Your task to perform on an android device: turn off smart reply in the gmail app Image 0: 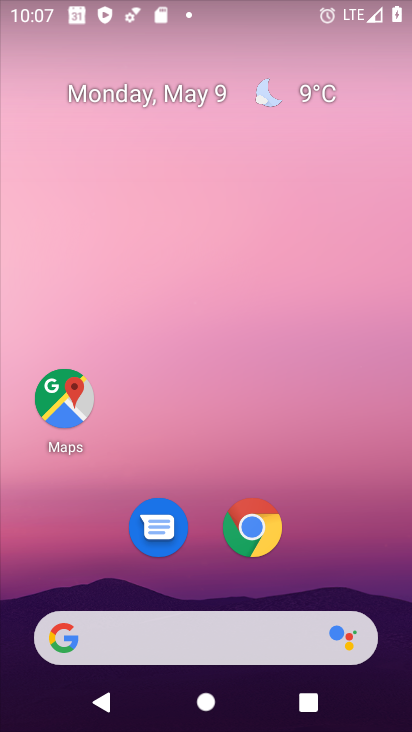
Step 0: drag from (389, 593) to (299, 58)
Your task to perform on an android device: turn off smart reply in the gmail app Image 1: 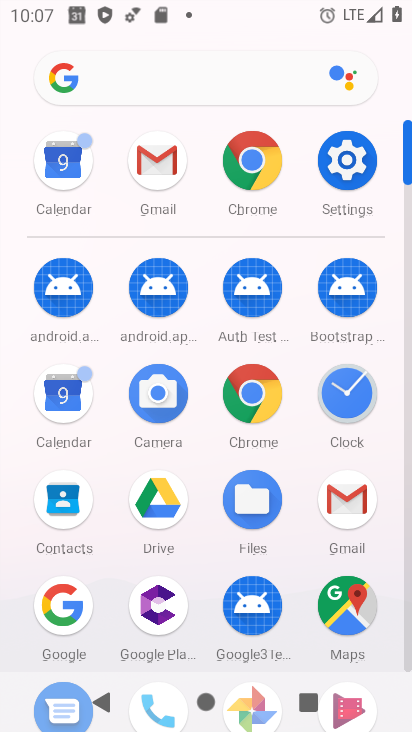
Step 1: click (402, 659)
Your task to perform on an android device: turn off smart reply in the gmail app Image 2: 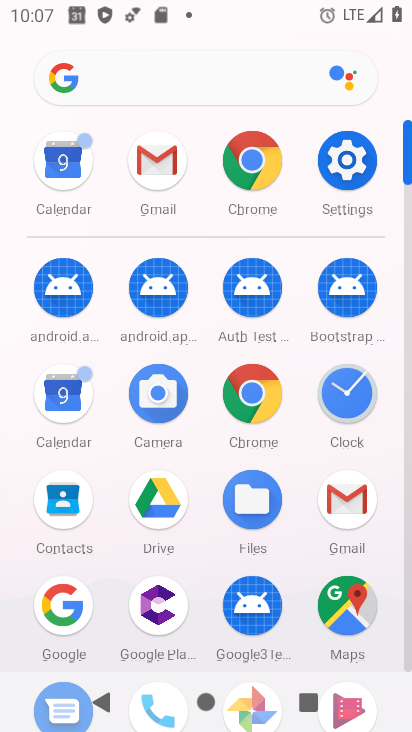
Step 2: click (409, 662)
Your task to perform on an android device: turn off smart reply in the gmail app Image 3: 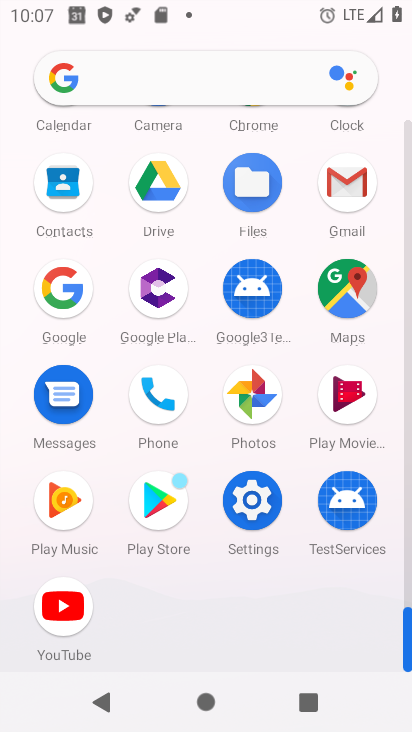
Step 3: click (346, 181)
Your task to perform on an android device: turn off smart reply in the gmail app Image 4: 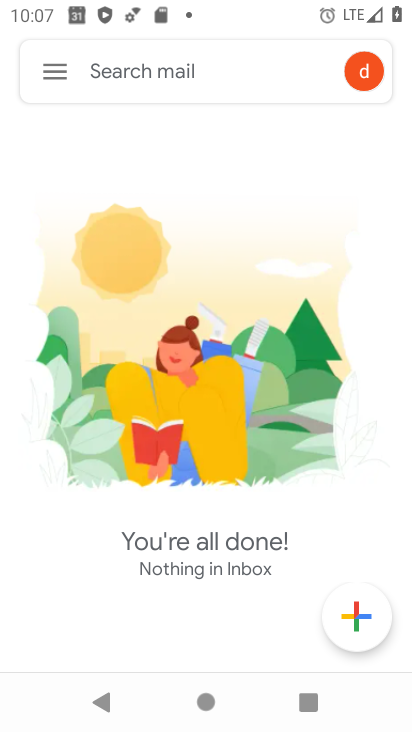
Step 4: click (52, 78)
Your task to perform on an android device: turn off smart reply in the gmail app Image 5: 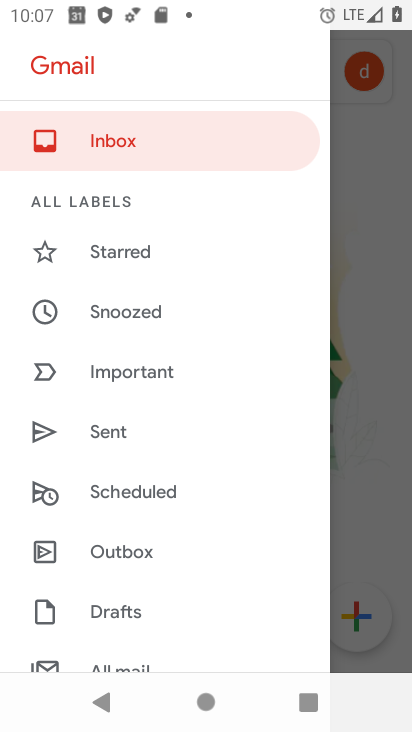
Step 5: drag from (222, 591) to (260, 208)
Your task to perform on an android device: turn off smart reply in the gmail app Image 6: 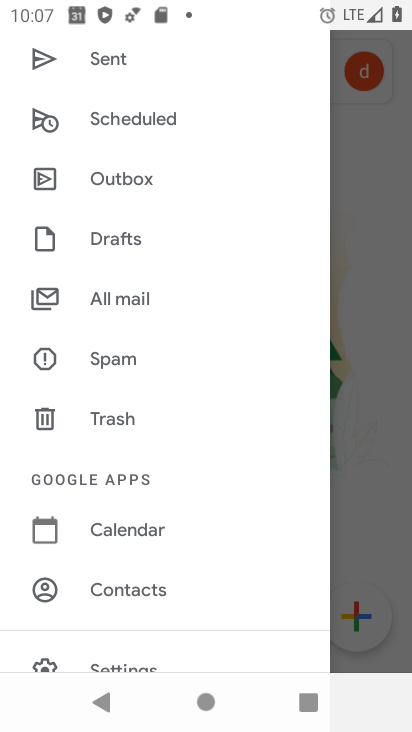
Step 6: drag from (215, 587) to (257, 203)
Your task to perform on an android device: turn off smart reply in the gmail app Image 7: 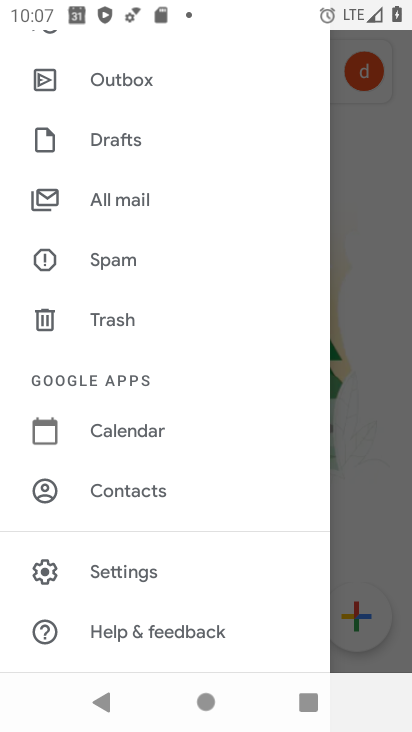
Step 7: click (128, 574)
Your task to perform on an android device: turn off smart reply in the gmail app Image 8: 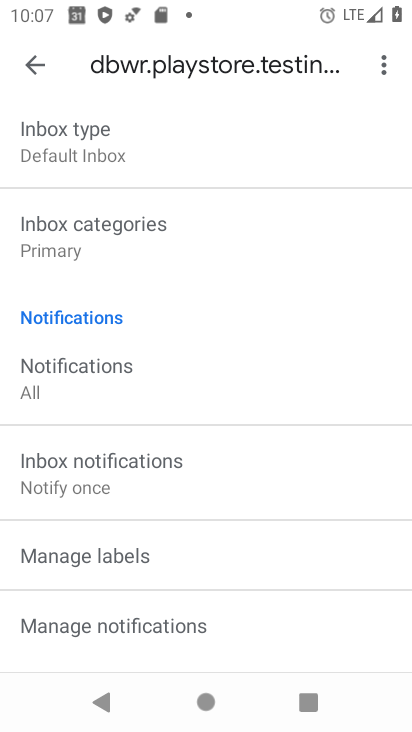
Step 8: drag from (263, 611) to (238, 196)
Your task to perform on an android device: turn off smart reply in the gmail app Image 9: 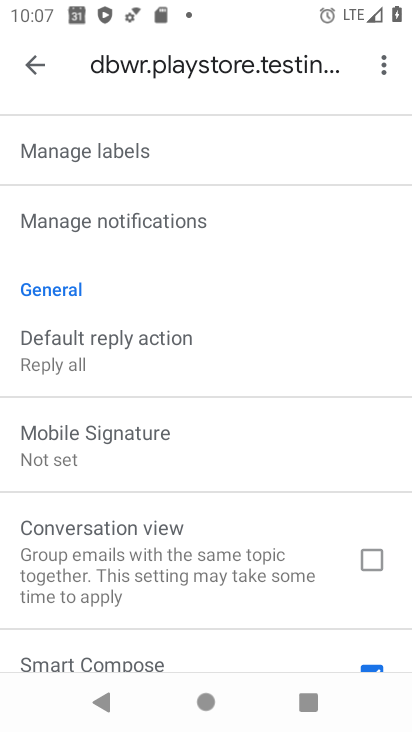
Step 9: drag from (218, 528) to (253, 124)
Your task to perform on an android device: turn off smart reply in the gmail app Image 10: 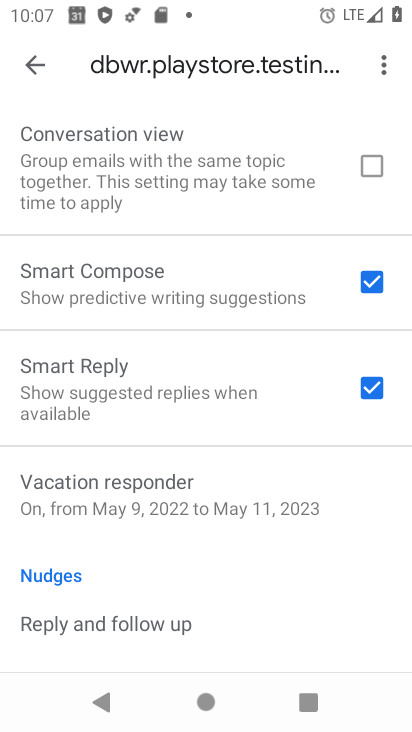
Step 10: click (376, 382)
Your task to perform on an android device: turn off smart reply in the gmail app Image 11: 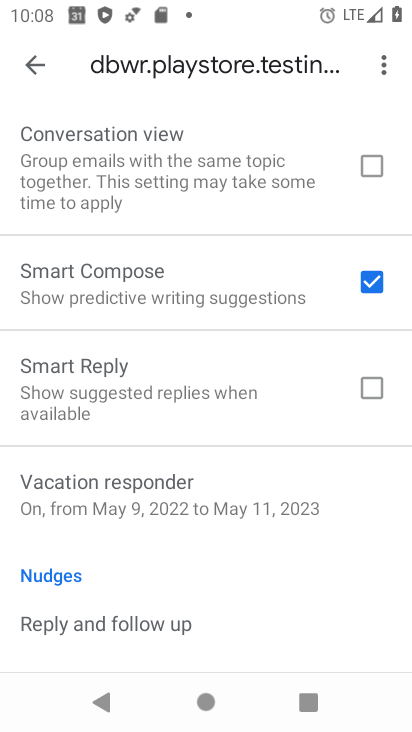
Step 11: task complete